Your task to perform on an android device: Search for amazon basics triple a on costco, select the first entry, and add it to the cart. Image 0: 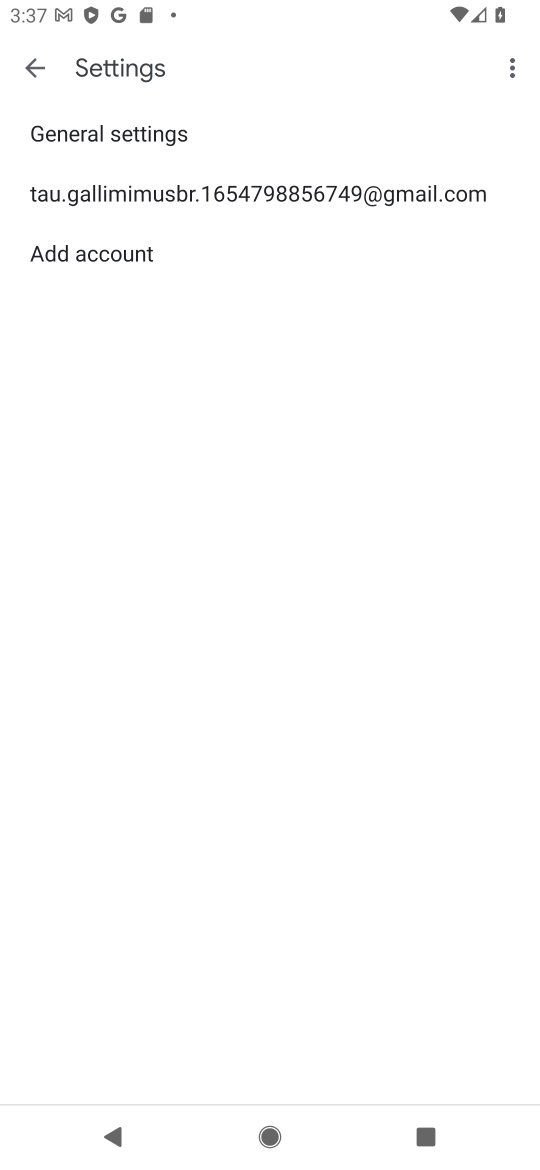
Step 0: press home button
Your task to perform on an android device: Search for amazon basics triple a on costco, select the first entry, and add it to the cart. Image 1: 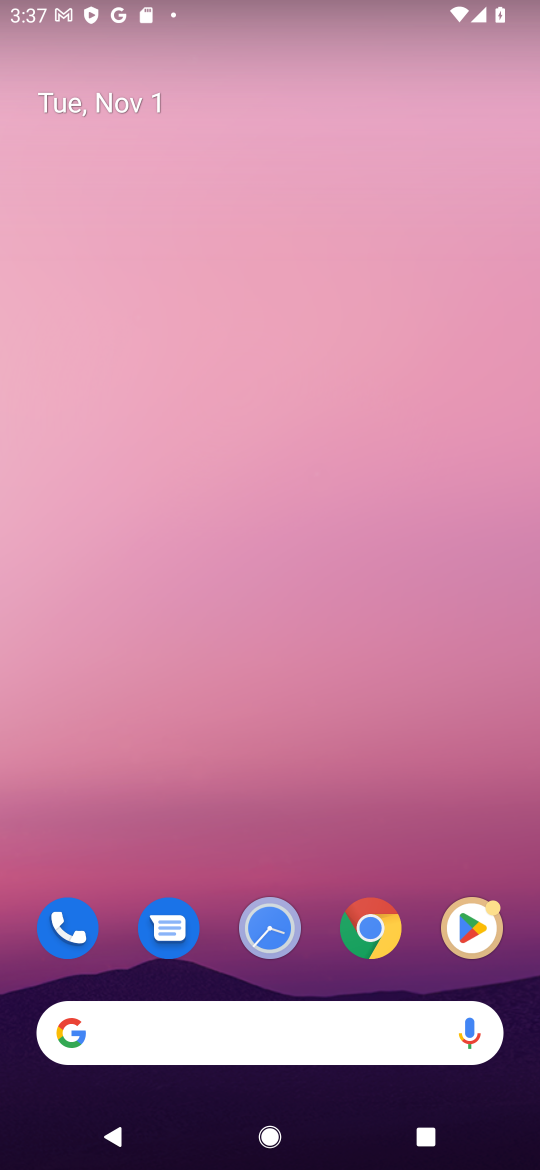
Step 1: click (379, 939)
Your task to perform on an android device: Search for amazon basics triple a on costco, select the first entry, and add it to the cart. Image 2: 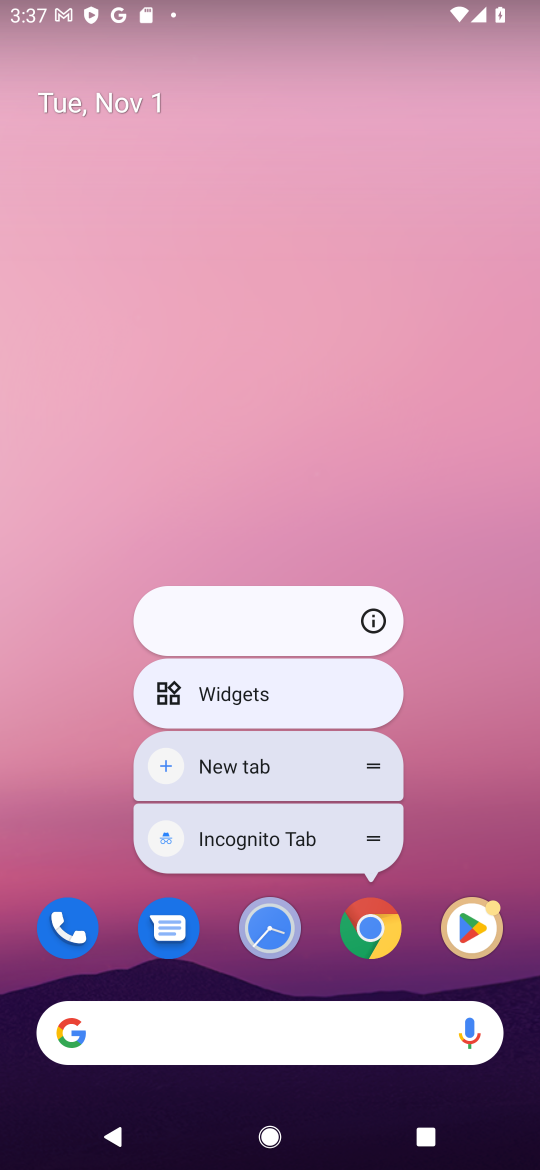
Step 2: click (361, 933)
Your task to perform on an android device: Search for amazon basics triple a on costco, select the first entry, and add it to the cart. Image 3: 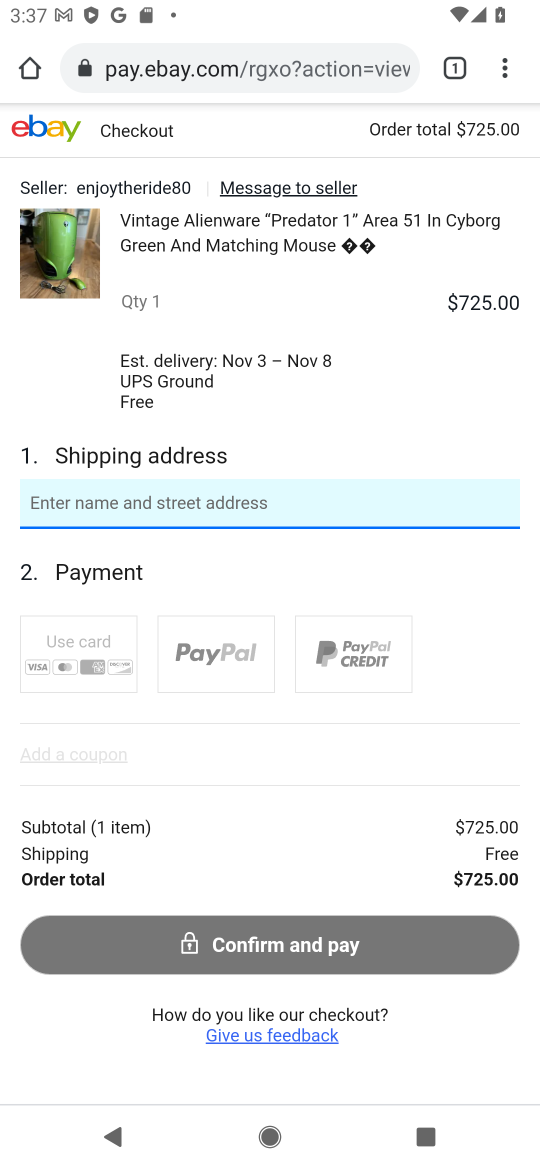
Step 3: click (272, 77)
Your task to perform on an android device: Search for amazon basics triple a on costco, select the first entry, and add it to the cart. Image 4: 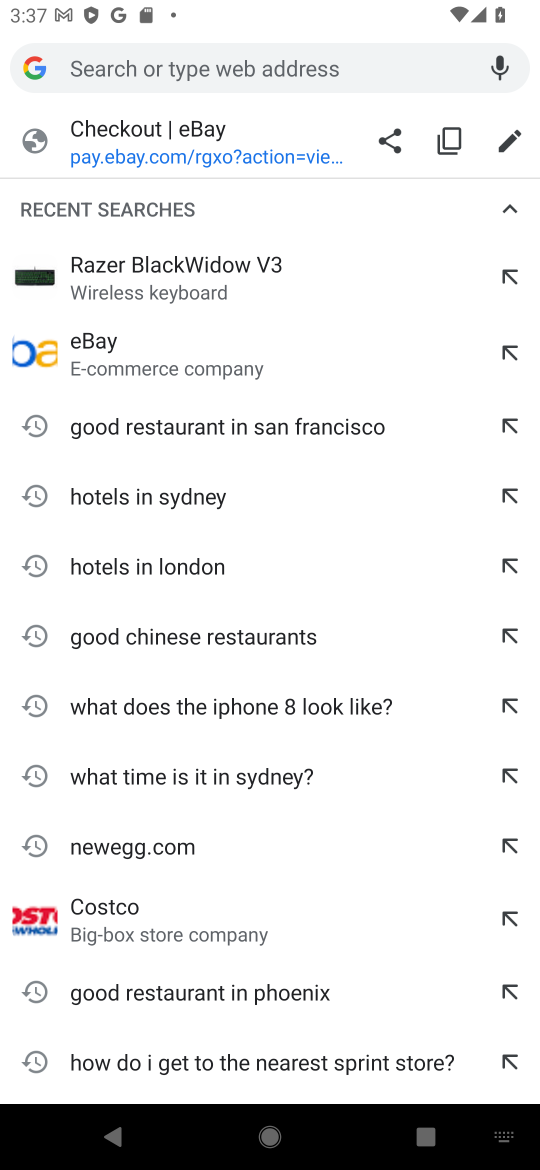
Step 4: type "costco"
Your task to perform on an android device: Search for amazon basics triple a on costco, select the first entry, and add it to the cart. Image 5: 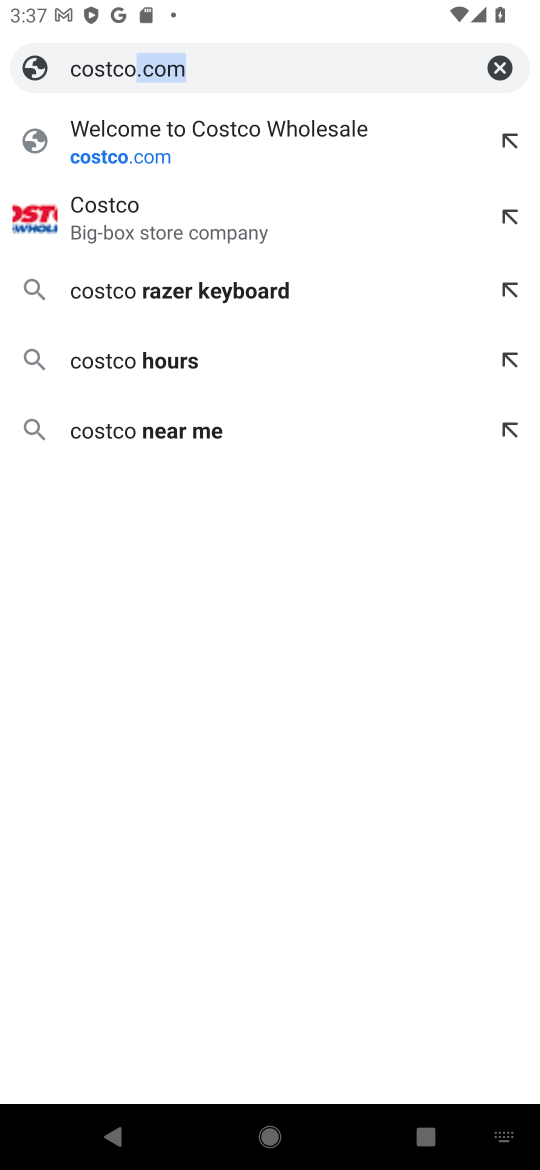
Step 5: press enter
Your task to perform on an android device: Search for amazon basics triple a on costco, select the first entry, and add it to the cart. Image 6: 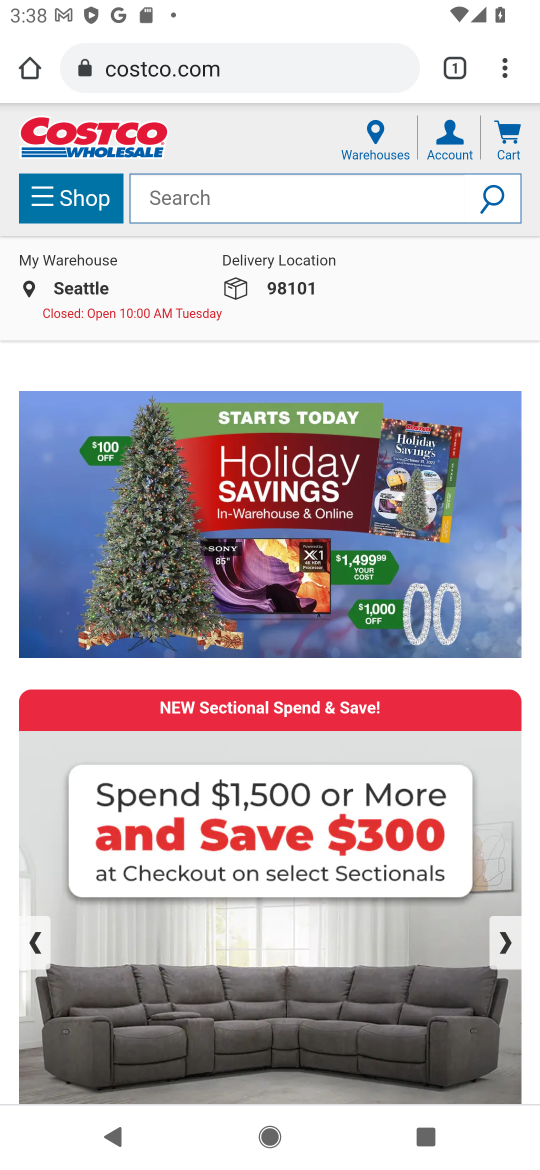
Step 6: click (300, 206)
Your task to perform on an android device: Search for amazon basics triple a on costco, select the first entry, and add it to the cart. Image 7: 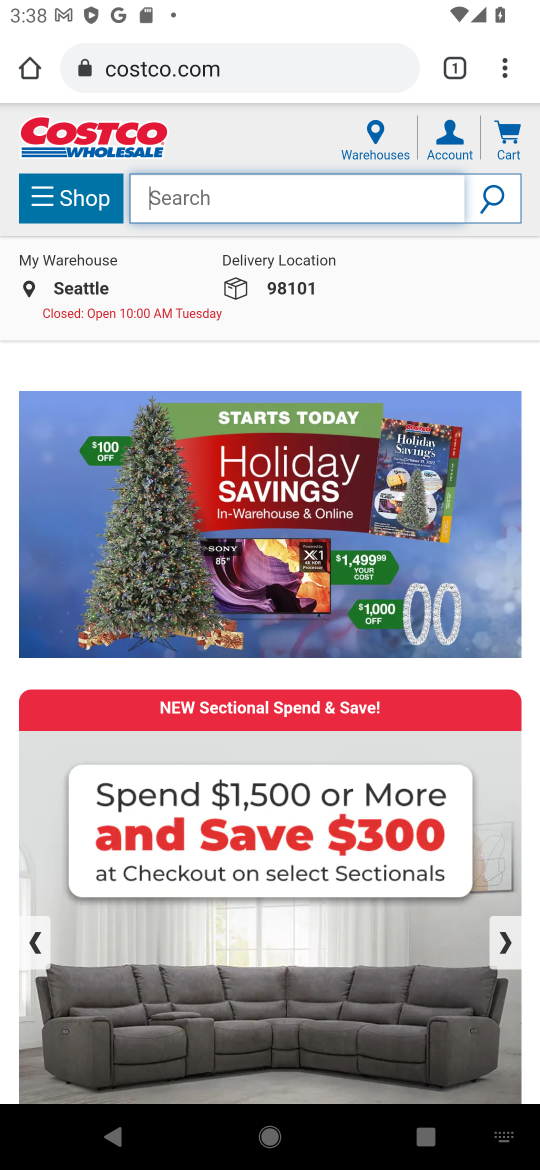
Step 7: type "amazon basics triple a"
Your task to perform on an android device: Search for amazon basics triple a on costco, select the first entry, and add it to the cart. Image 8: 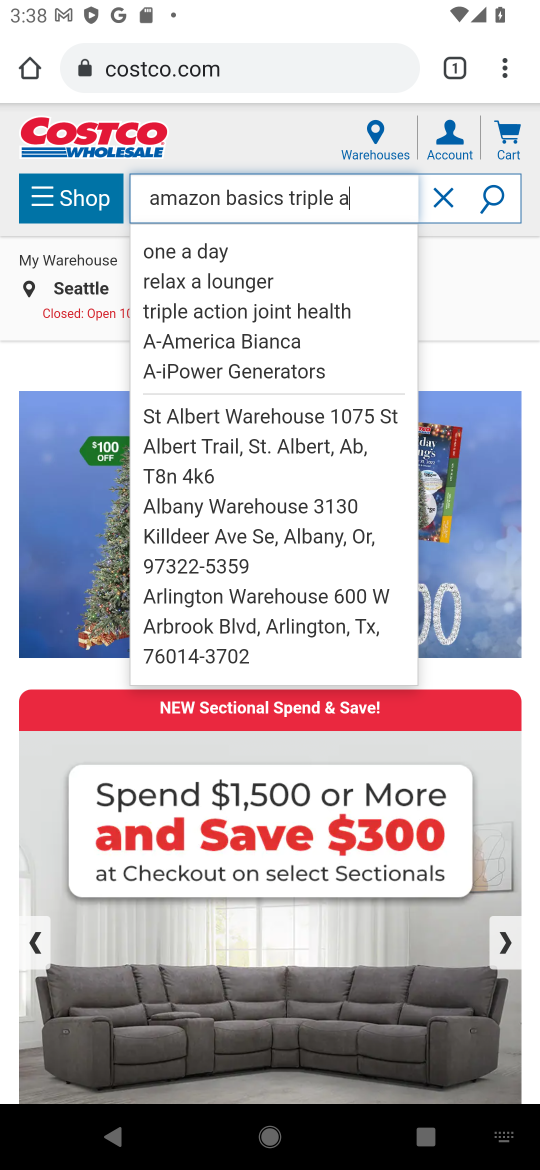
Step 8: press enter
Your task to perform on an android device: Search for amazon basics triple a on costco, select the first entry, and add it to the cart. Image 9: 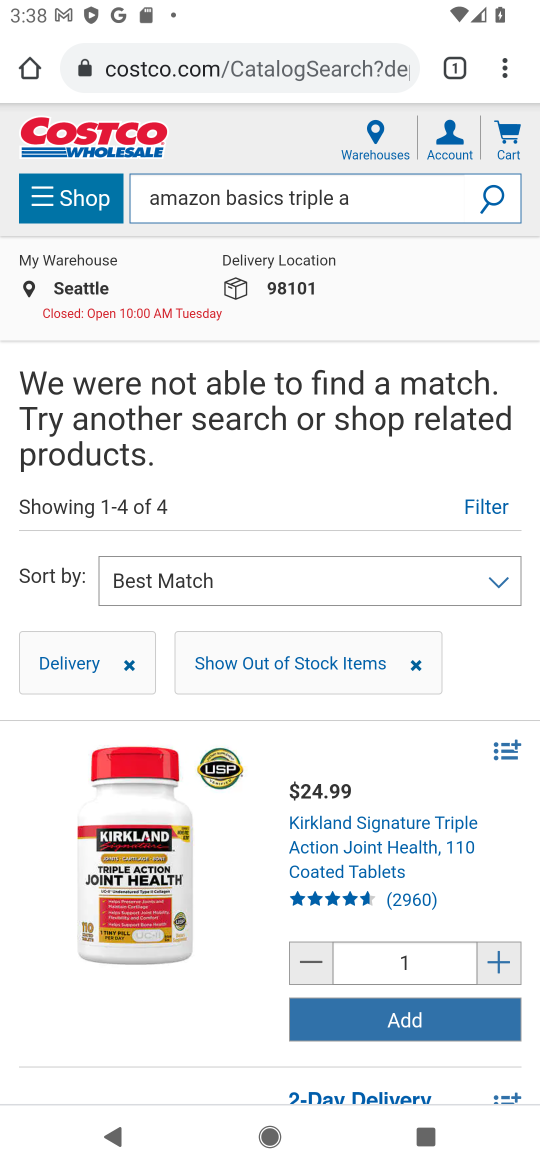
Step 9: drag from (392, 894) to (401, 762)
Your task to perform on an android device: Search for amazon basics triple a on costco, select the first entry, and add it to the cart. Image 10: 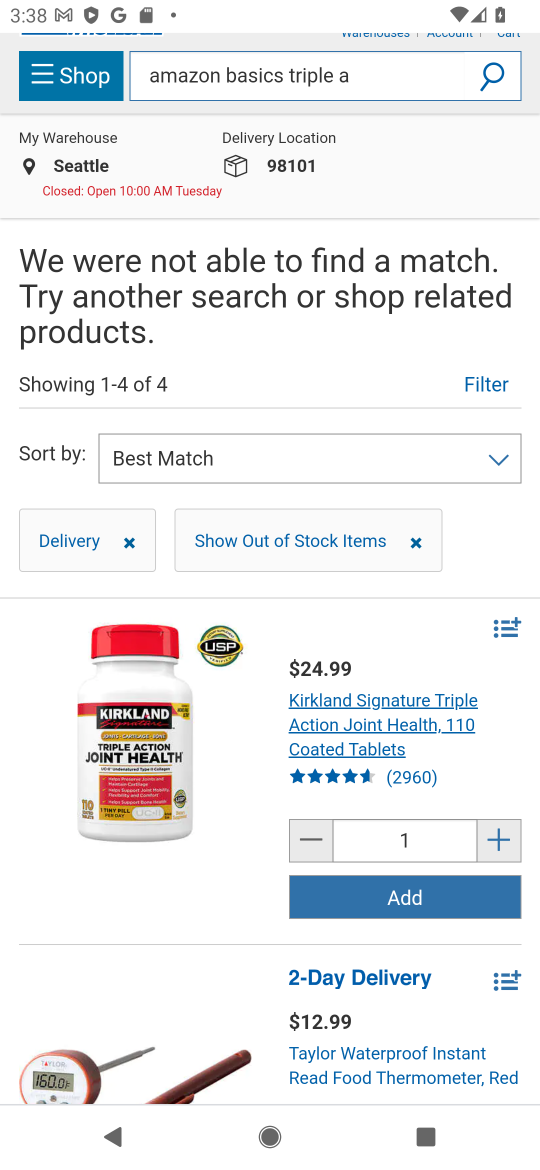
Step 10: click (366, 731)
Your task to perform on an android device: Search for amazon basics triple a on costco, select the first entry, and add it to the cart. Image 11: 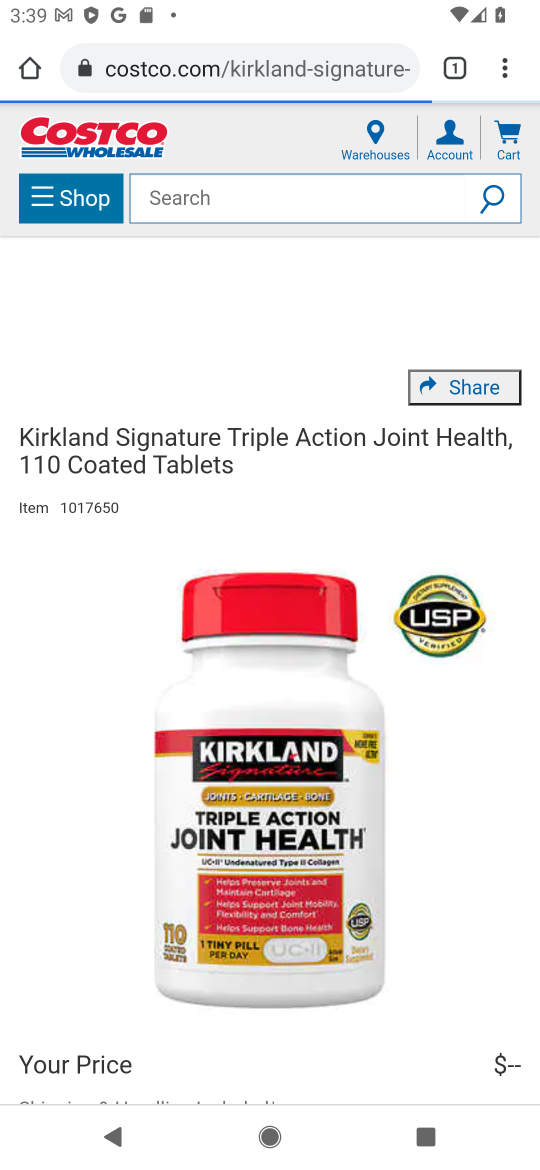
Step 11: drag from (411, 927) to (411, 413)
Your task to perform on an android device: Search for amazon basics triple a on costco, select the first entry, and add it to the cart. Image 12: 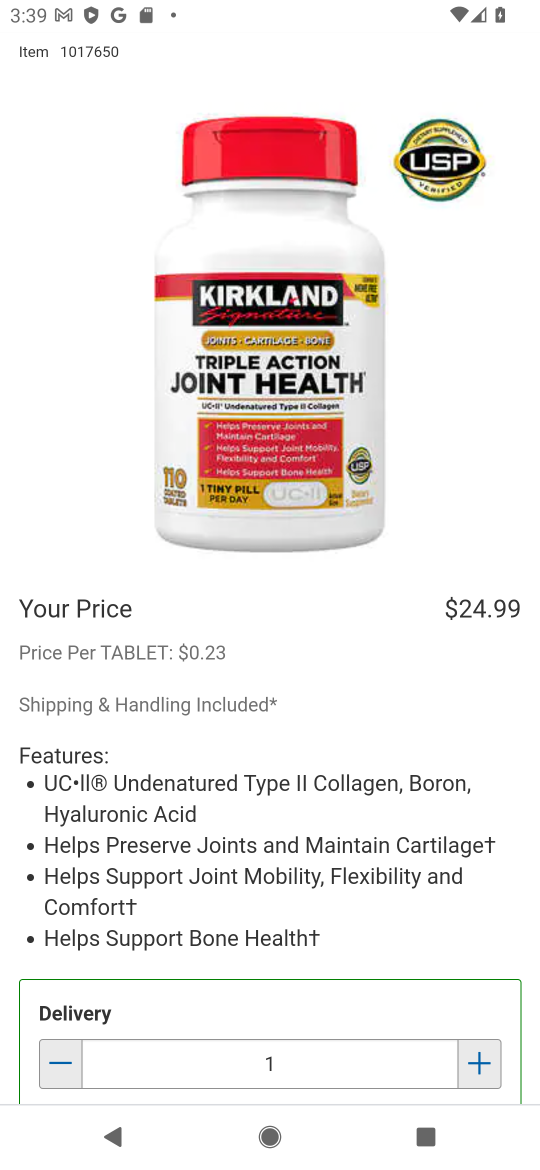
Step 12: drag from (329, 940) to (329, 711)
Your task to perform on an android device: Search for amazon basics triple a on costco, select the first entry, and add it to the cart. Image 13: 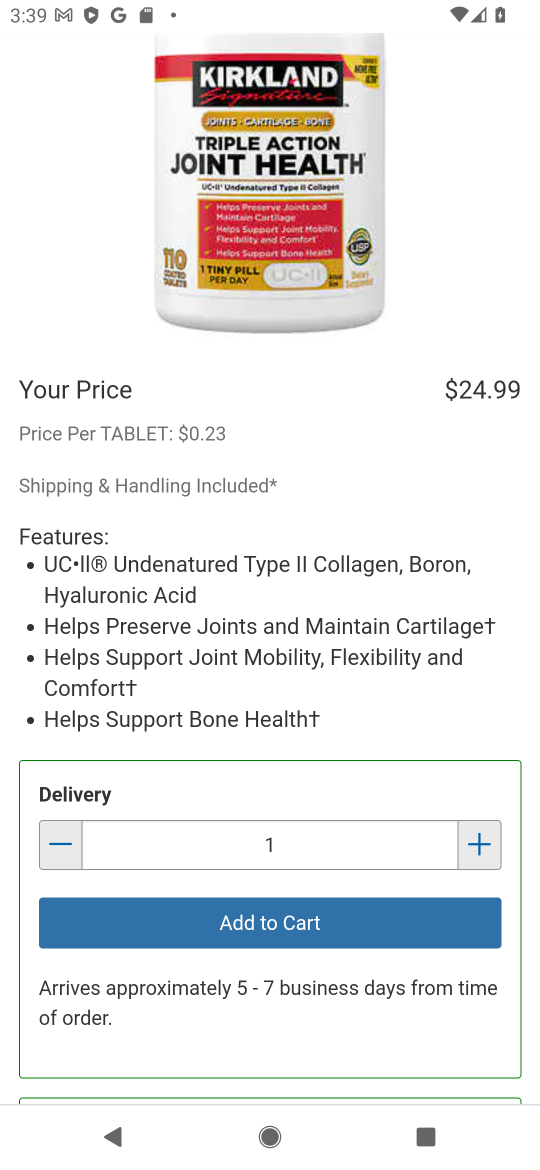
Step 13: click (316, 935)
Your task to perform on an android device: Search for amazon basics triple a on costco, select the first entry, and add it to the cart. Image 14: 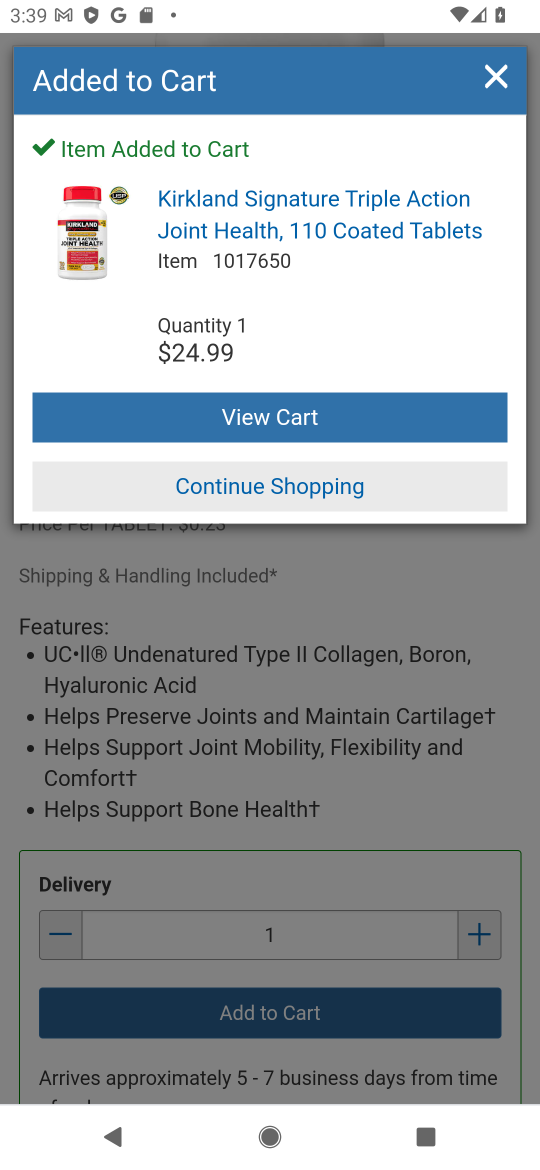
Step 14: task complete